Your task to perform on an android device: Open Google Image 0: 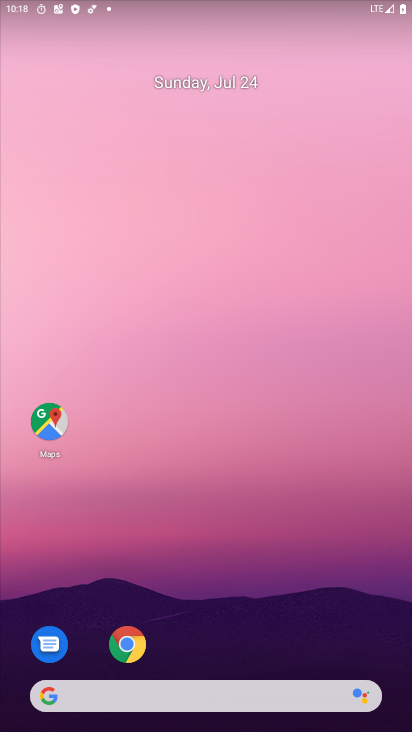
Step 0: drag from (196, 670) to (240, 236)
Your task to perform on an android device: Open Google Image 1: 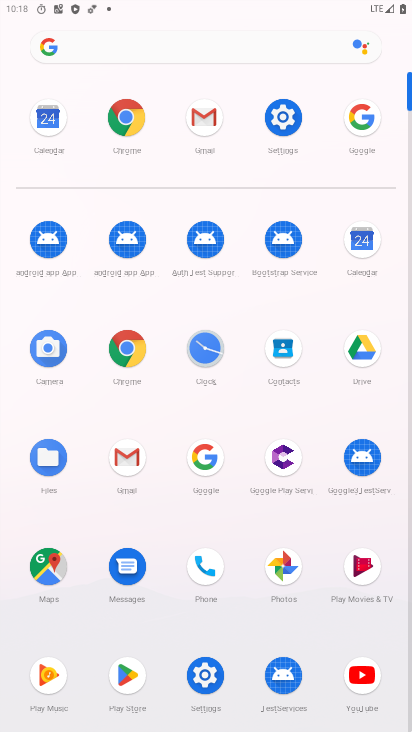
Step 1: click (202, 462)
Your task to perform on an android device: Open Google Image 2: 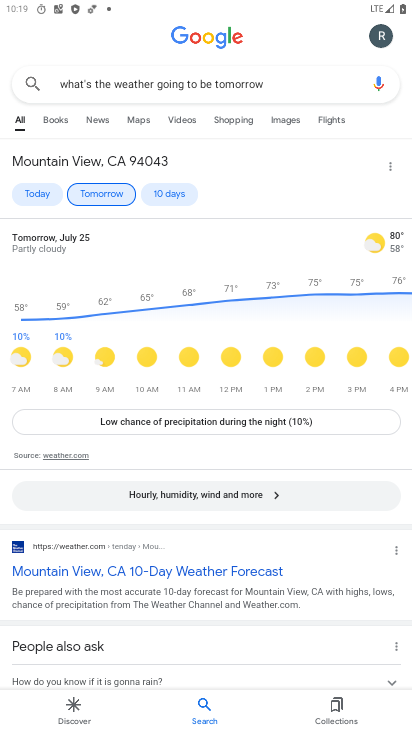
Step 2: task complete